Your task to perform on an android device: turn off picture-in-picture Image 0: 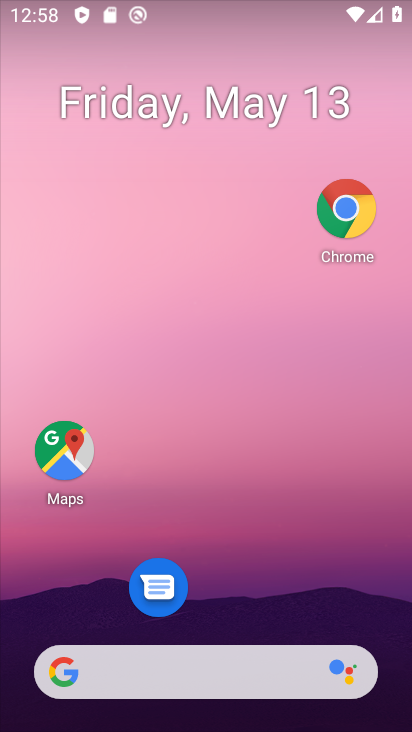
Step 0: drag from (287, 511) to (322, 139)
Your task to perform on an android device: turn off picture-in-picture Image 1: 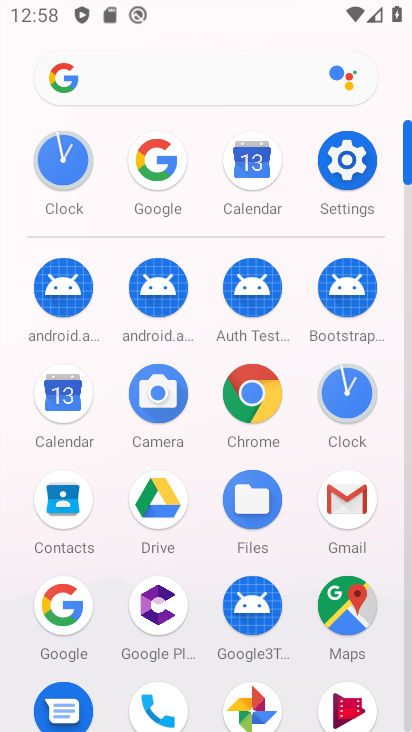
Step 1: click (351, 156)
Your task to perform on an android device: turn off picture-in-picture Image 2: 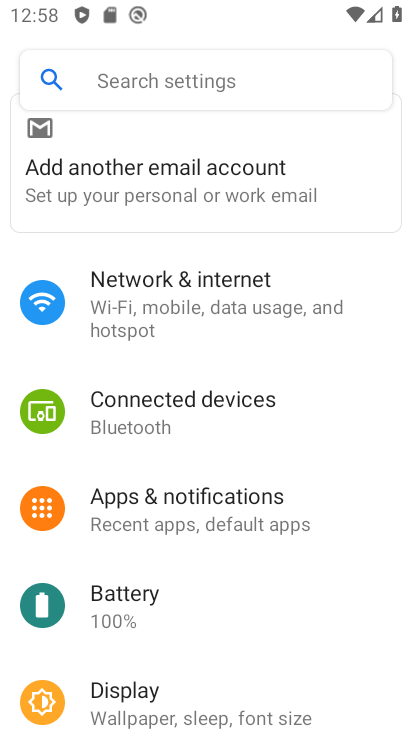
Step 2: click (187, 515)
Your task to perform on an android device: turn off picture-in-picture Image 3: 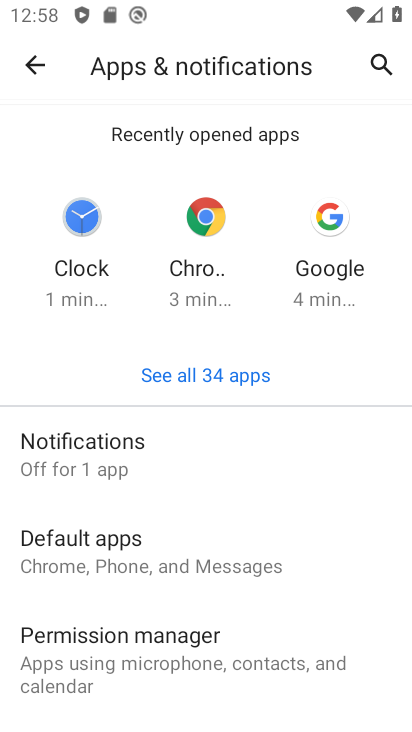
Step 3: click (132, 448)
Your task to perform on an android device: turn off picture-in-picture Image 4: 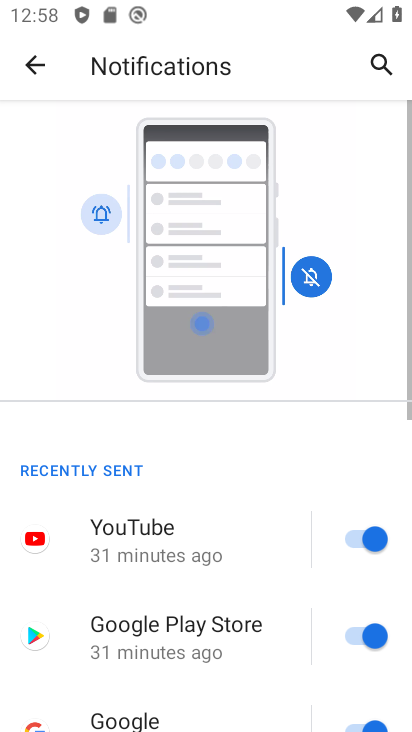
Step 4: drag from (141, 618) to (263, 128)
Your task to perform on an android device: turn off picture-in-picture Image 5: 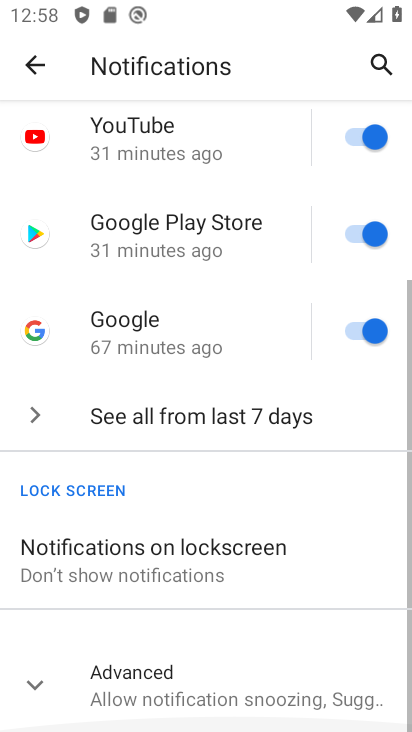
Step 5: drag from (139, 575) to (236, 105)
Your task to perform on an android device: turn off picture-in-picture Image 6: 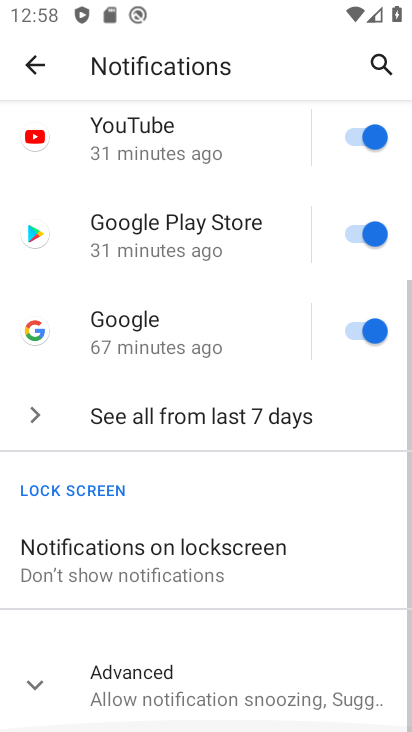
Step 6: click (152, 672)
Your task to perform on an android device: turn off picture-in-picture Image 7: 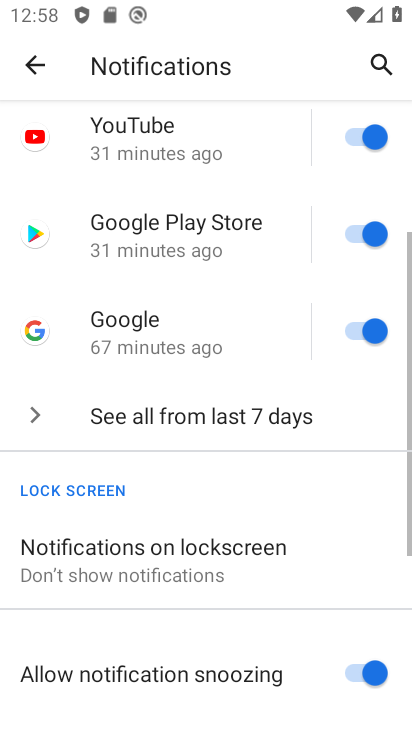
Step 7: drag from (148, 687) to (231, 129)
Your task to perform on an android device: turn off picture-in-picture Image 8: 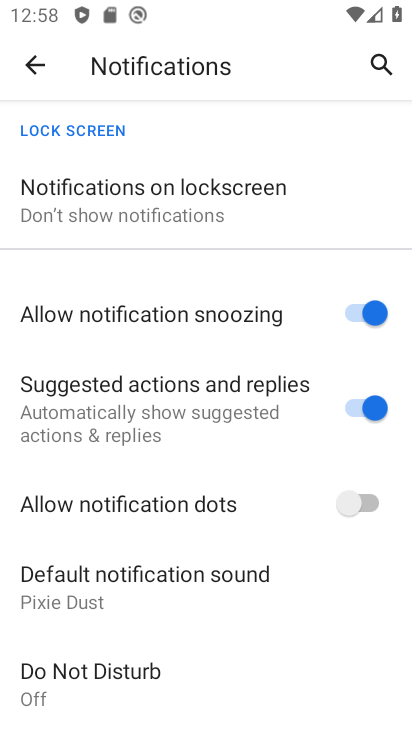
Step 8: drag from (151, 687) to (243, 172)
Your task to perform on an android device: turn off picture-in-picture Image 9: 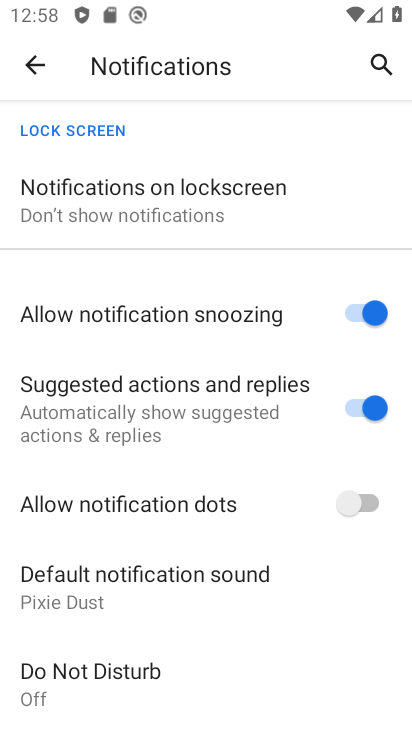
Step 9: click (31, 63)
Your task to perform on an android device: turn off picture-in-picture Image 10: 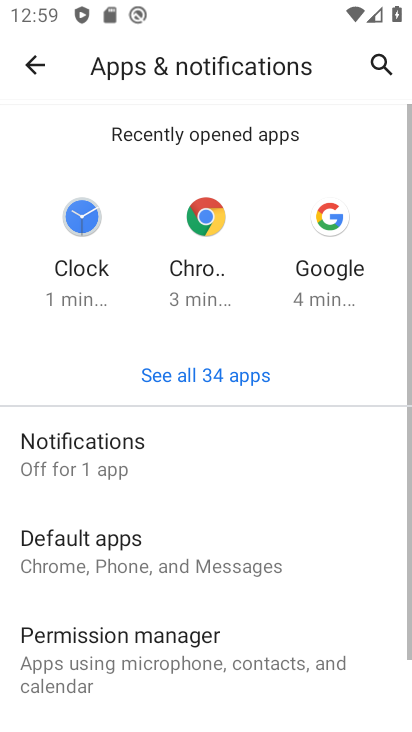
Step 10: drag from (137, 616) to (258, 59)
Your task to perform on an android device: turn off picture-in-picture Image 11: 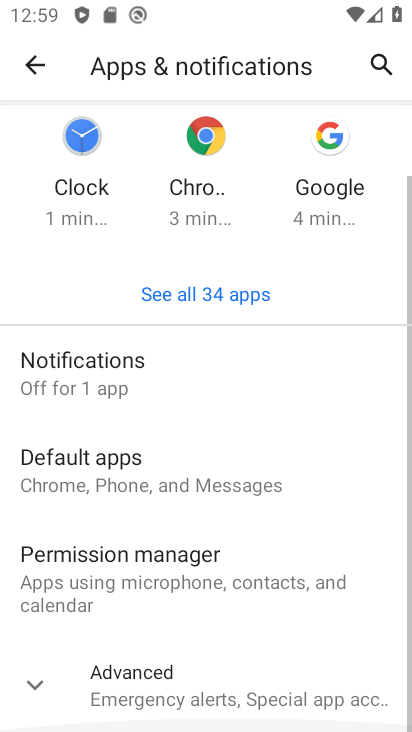
Step 11: click (163, 682)
Your task to perform on an android device: turn off picture-in-picture Image 12: 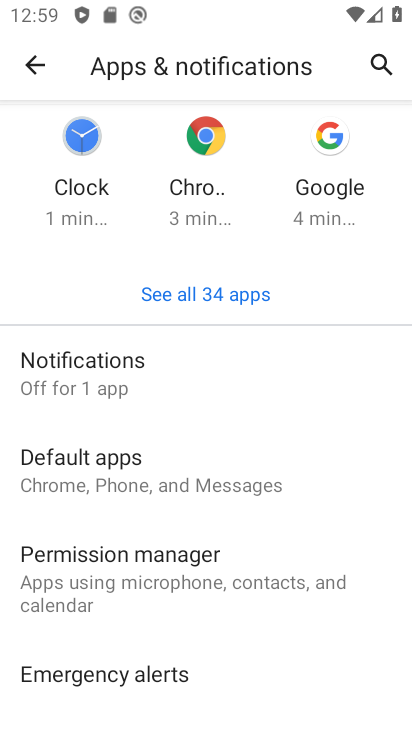
Step 12: drag from (132, 661) to (219, 208)
Your task to perform on an android device: turn off picture-in-picture Image 13: 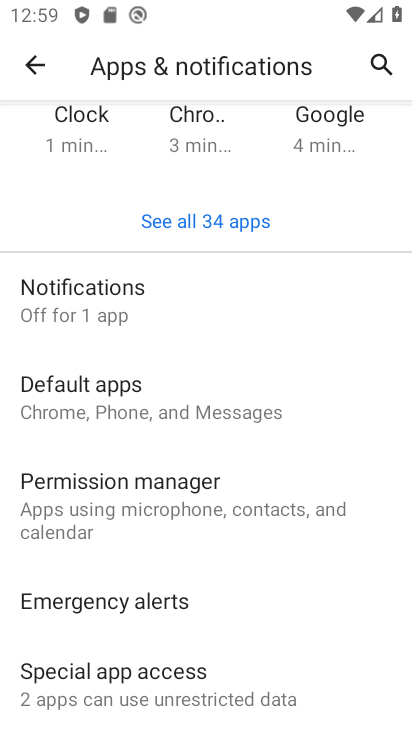
Step 13: click (123, 683)
Your task to perform on an android device: turn off picture-in-picture Image 14: 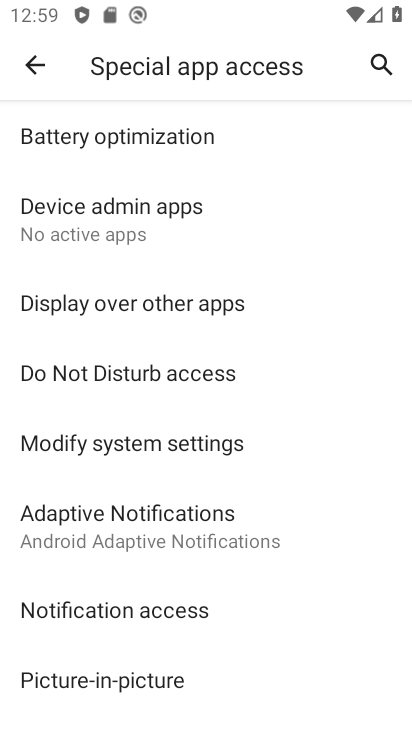
Step 14: click (93, 663)
Your task to perform on an android device: turn off picture-in-picture Image 15: 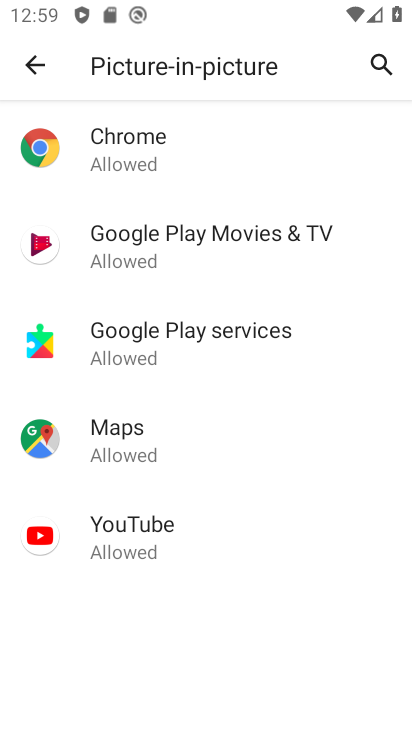
Step 15: click (189, 146)
Your task to perform on an android device: turn off picture-in-picture Image 16: 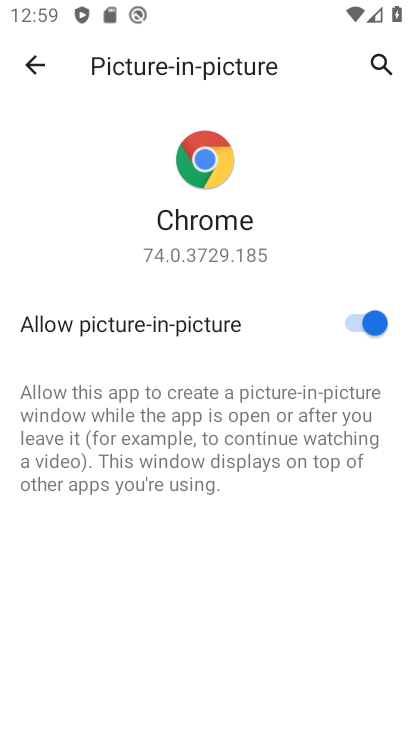
Step 16: click (369, 325)
Your task to perform on an android device: turn off picture-in-picture Image 17: 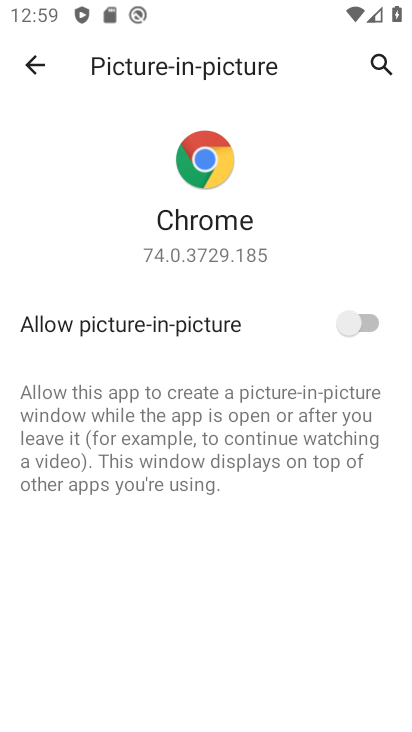
Step 17: task complete